Your task to perform on an android device: move an email to a new category in the gmail app Image 0: 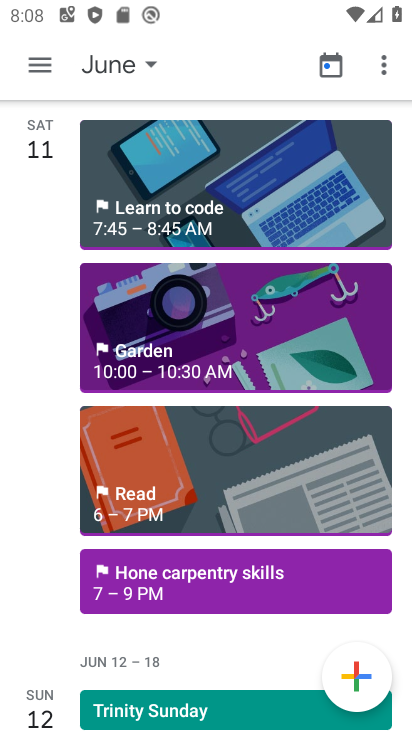
Step 0: press home button
Your task to perform on an android device: move an email to a new category in the gmail app Image 1: 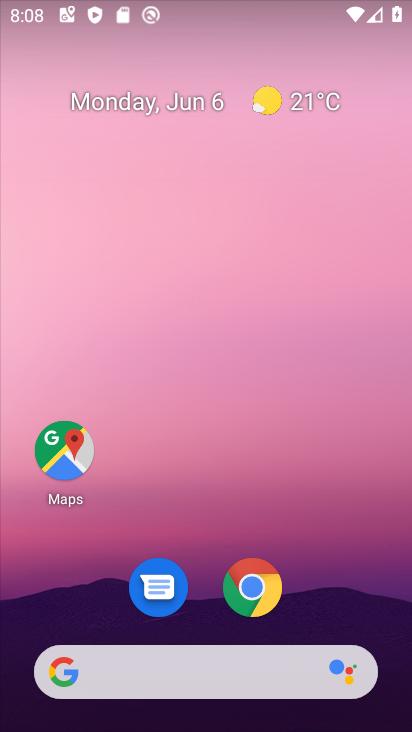
Step 1: drag from (255, 673) to (203, 46)
Your task to perform on an android device: move an email to a new category in the gmail app Image 2: 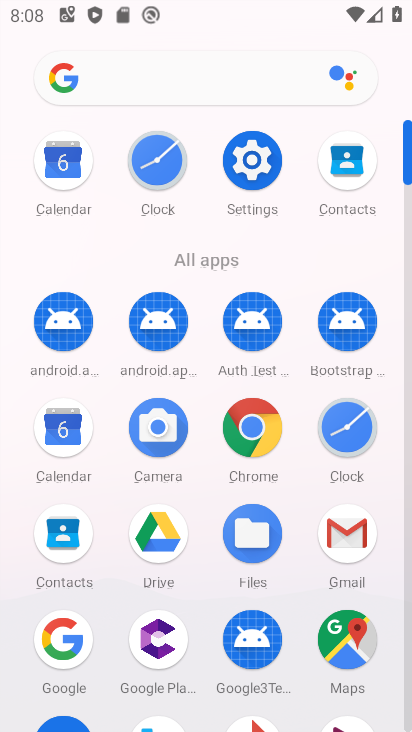
Step 2: click (333, 533)
Your task to perform on an android device: move an email to a new category in the gmail app Image 3: 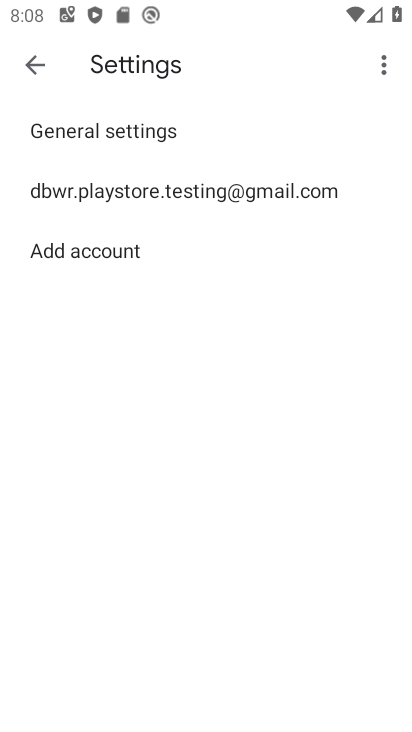
Step 3: click (246, 196)
Your task to perform on an android device: move an email to a new category in the gmail app Image 4: 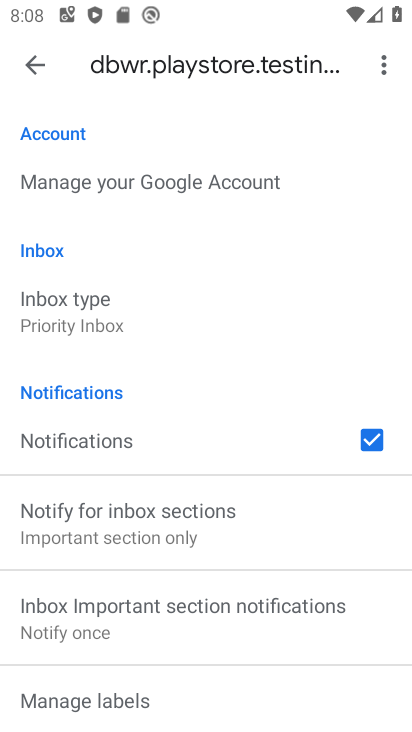
Step 4: click (33, 64)
Your task to perform on an android device: move an email to a new category in the gmail app Image 5: 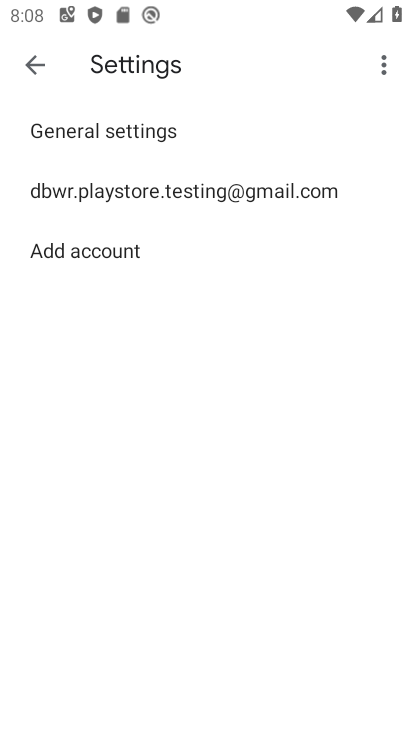
Step 5: click (31, 64)
Your task to perform on an android device: move an email to a new category in the gmail app Image 6: 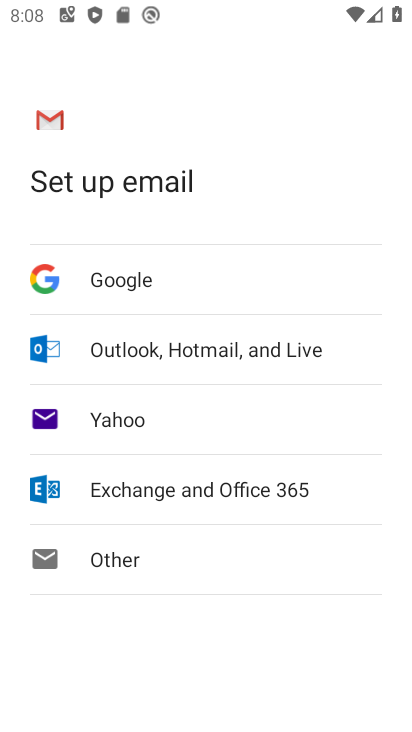
Step 6: press back button
Your task to perform on an android device: move an email to a new category in the gmail app Image 7: 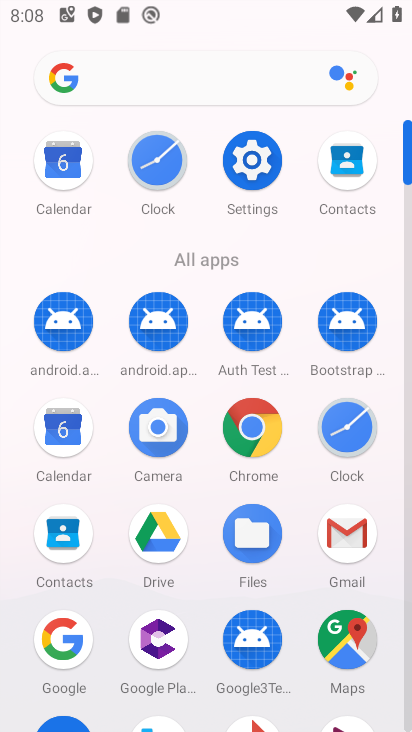
Step 7: click (323, 548)
Your task to perform on an android device: move an email to a new category in the gmail app Image 8: 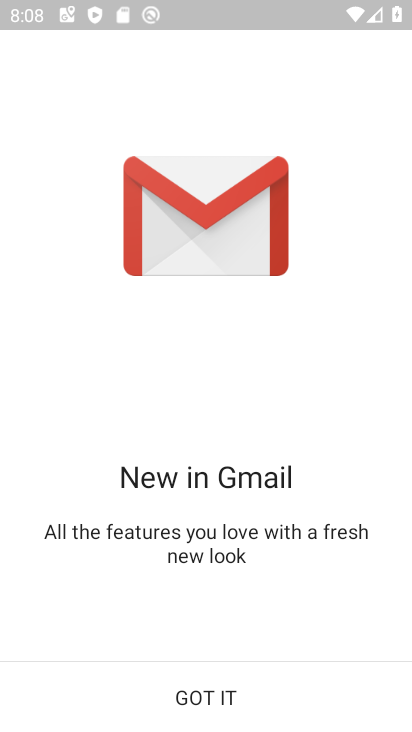
Step 8: click (209, 709)
Your task to perform on an android device: move an email to a new category in the gmail app Image 9: 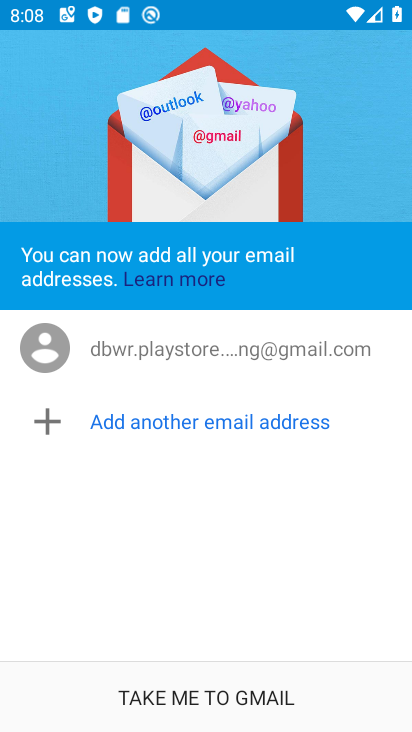
Step 9: click (209, 708)
Your task to perform on an android device: move an email to a new category in the gmail app Image 10: 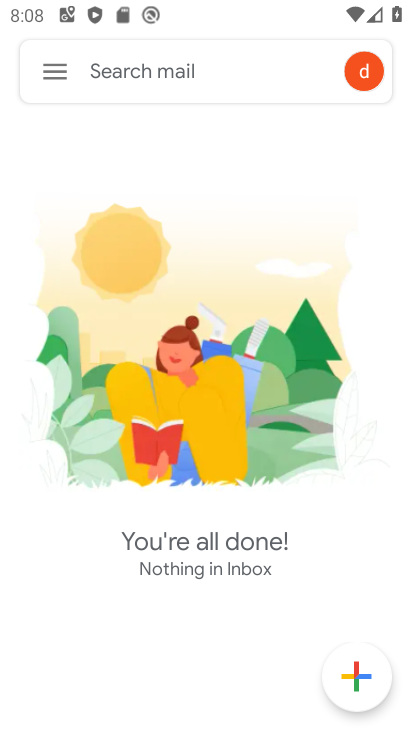
Step 10: click (49, 80)
Your task to perform on an android device: move an email to a new category in the gmail app Image 11: 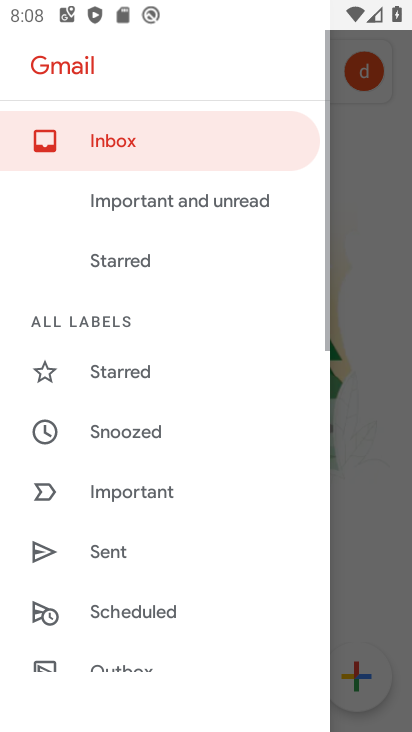
Step 11: drag from (163, 620) to (251, 133)
Your task to perform on an android device: move an email to a new category in the gmail app Image 12: 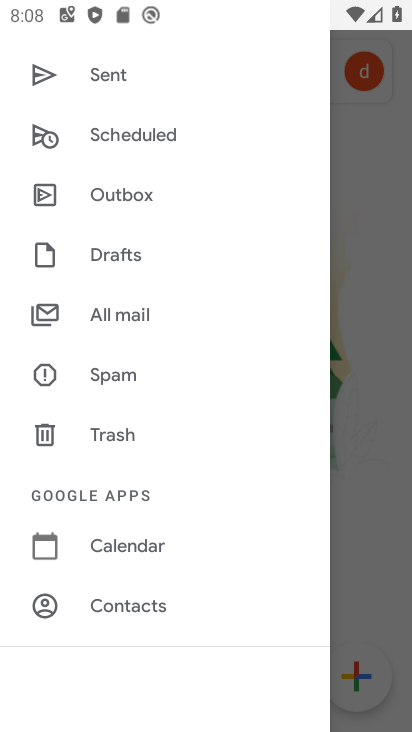
Step 12: click (157, 309)
Your task to perform on an android device: move an email to a new category in the gmail app Image 13: 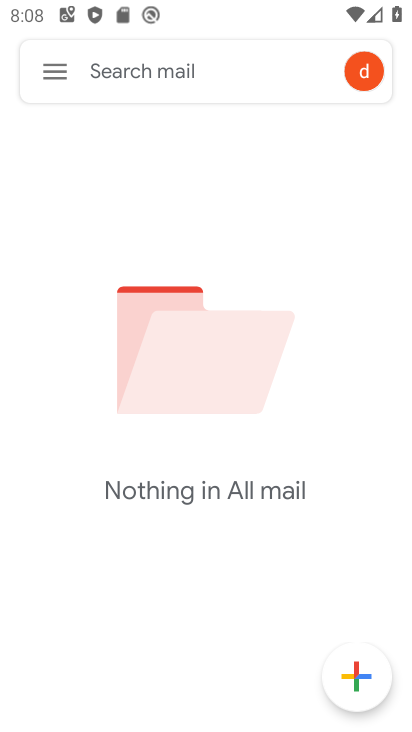
Step 13: task complete